Your task to perform on an android device: open device folders in google photos Image 0: 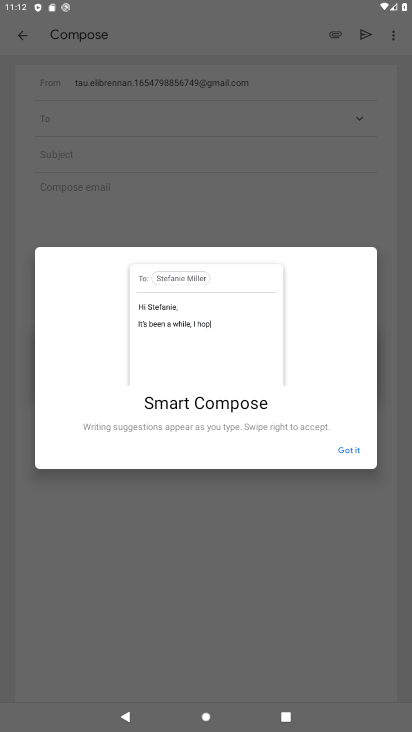
Step 0: press home button
Your task to perform on an android device: open device folders in google photos Image 1: 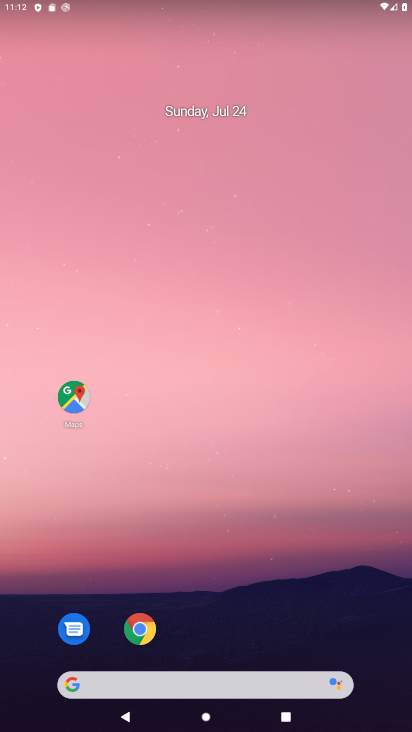
Step 1: drag from (224, 647) to (192, 179)
Your task to perform on an android device: open device folders in google photos Image 2: 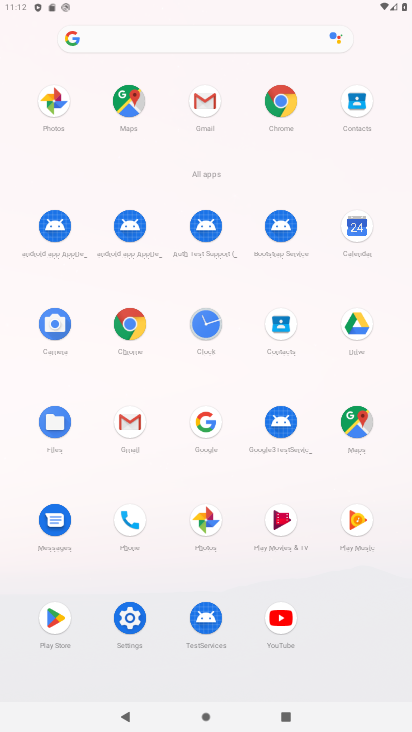
Step 2: click (75, 96)
Your task to perform on an android device: open device folders in google photos Image 3: 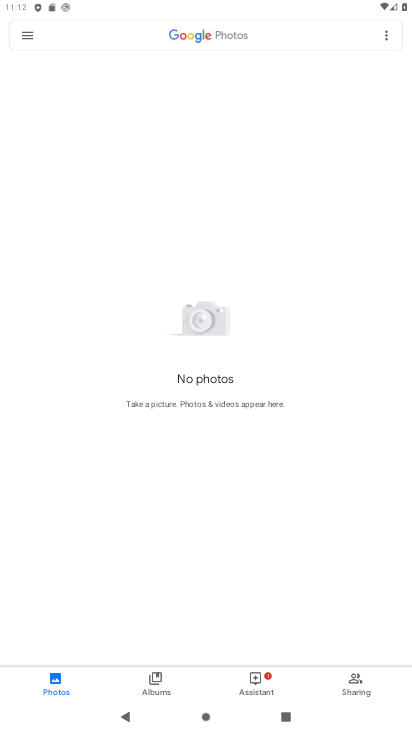
Step 3: click (32, 41)
Your task to perform on an android device: open device folders in google photos Image 4: 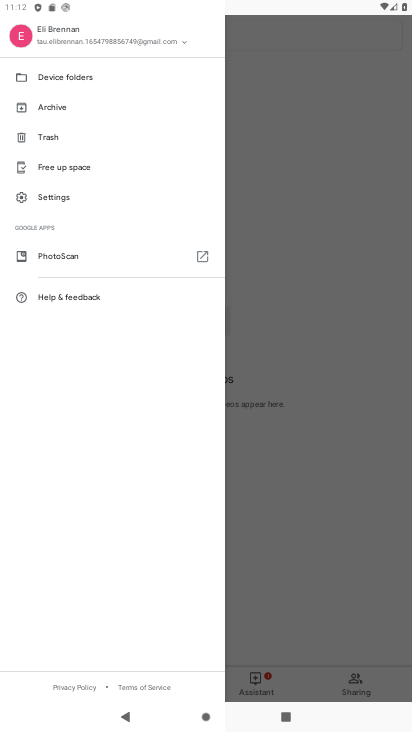
Step 4: click (80, 78)
Your task to perform on an android device: open device folders in google photos Image 5: 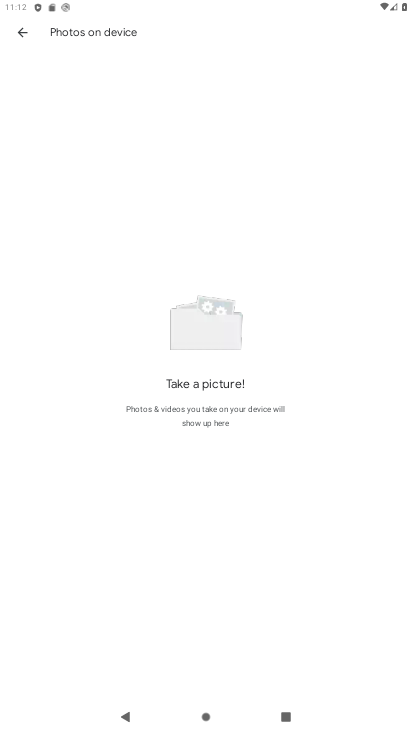
Step 5: task complete